Your task to perform on an android device: Check the weather Image 0: 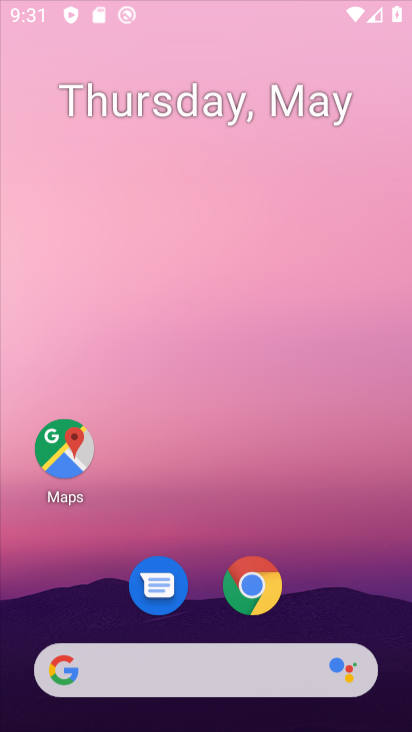
Step 0: press home button
Your task to perform on an android device: Check the weather Image 1: 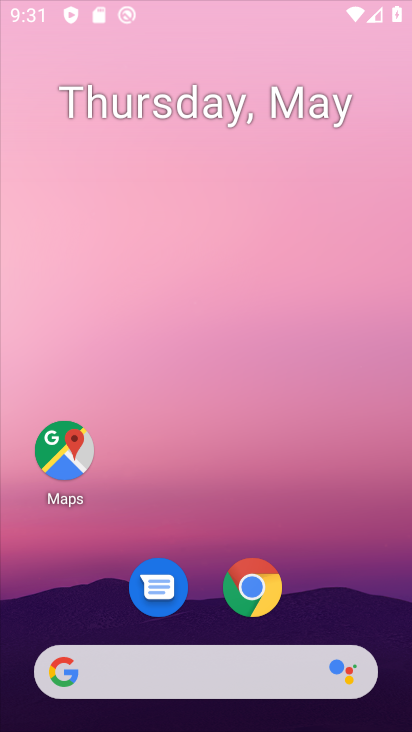
Step 1: drag from (214, 633) to (162, 108)
Your task to perform on an android device: Check the weather Image 2: 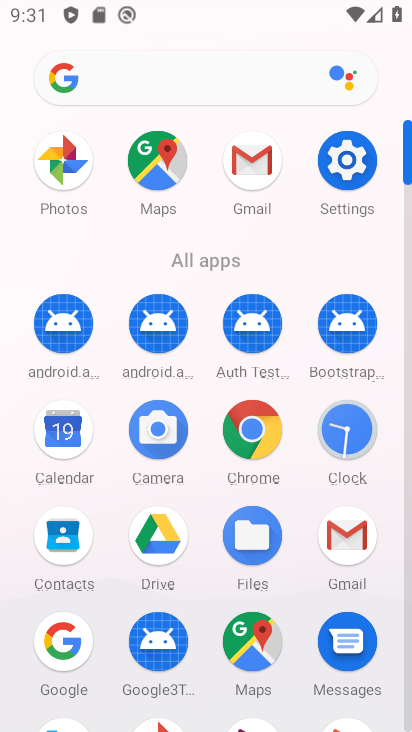
Step 2: click (57, 654)
Your task to perform on an android device: Check the weather Image 3: 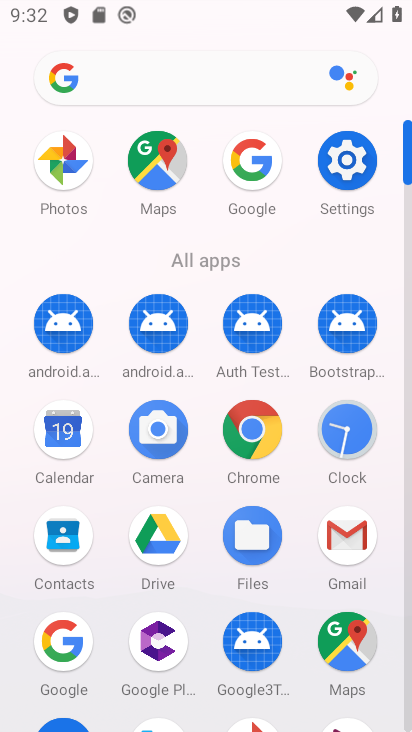
Step 3: click (61, 620)
Your task to perform on an android device: Check the weather Image 4: 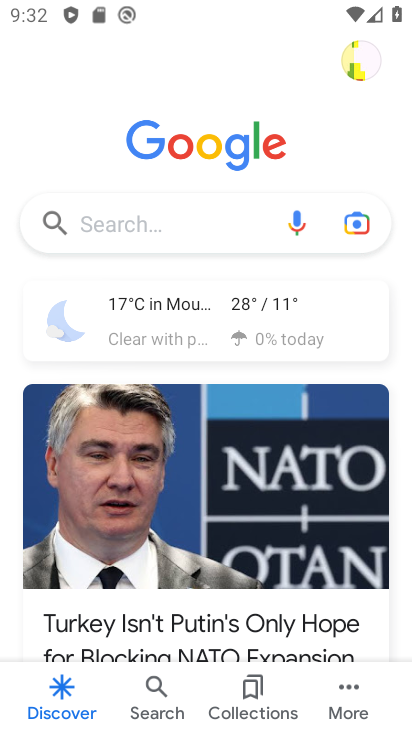
Step 4: click (109, 232)
Your task to perform on an android device: Check the weather Image 5: 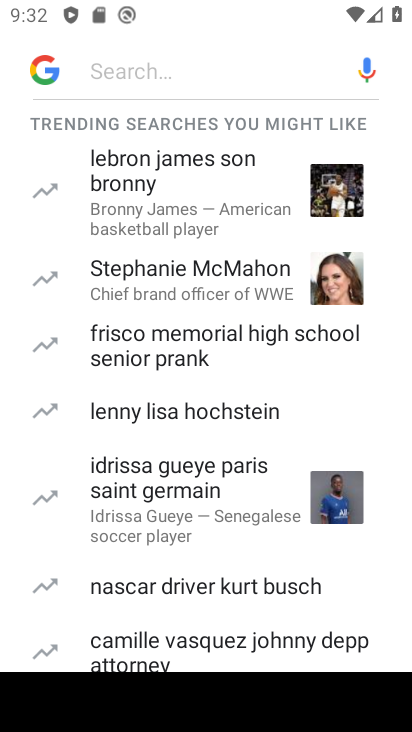
Step 5: drag from (166, 476) to (94, 0)
Your task to perform on an android device: Check the weather Image 6: 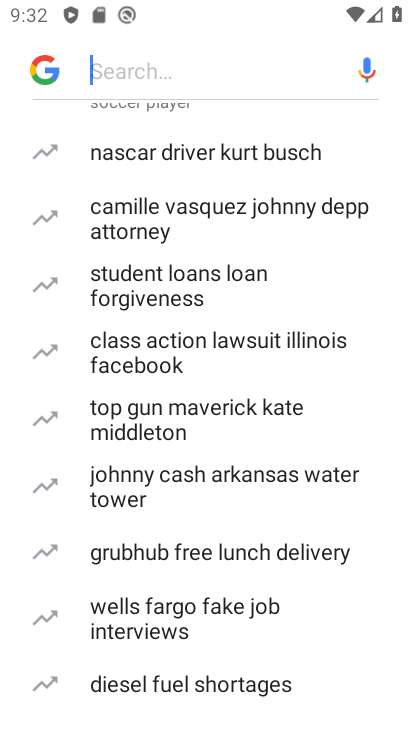
Step 6: drag from (135, 586) to (81, 6)
Your task to perform on an android device: Check the weather Image 7: 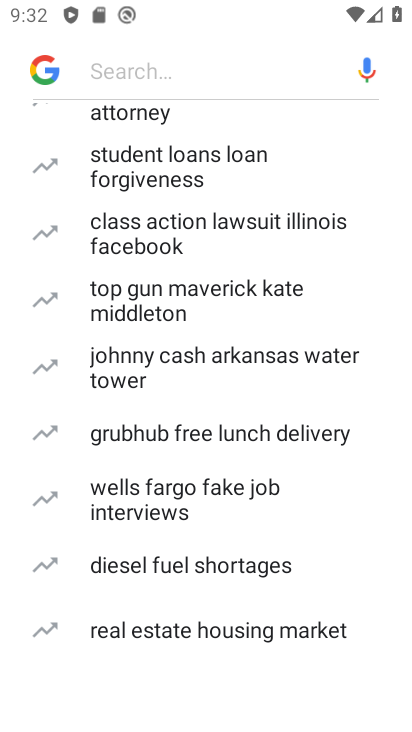
Step 7: press back button
Your task to perform on an android device: Check the weather Image 8: 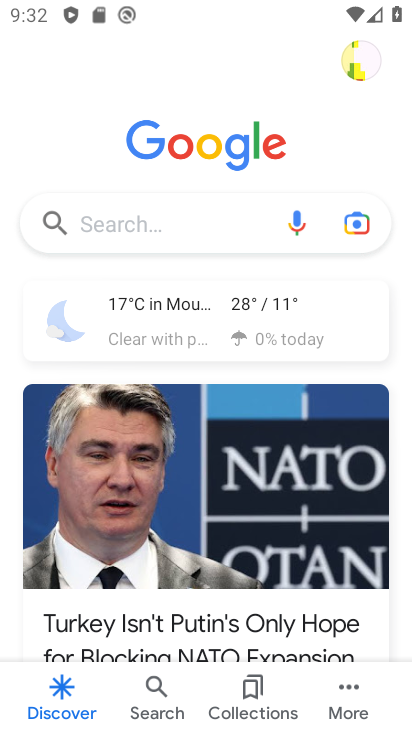
Step 8: click (147, 210)
Your task to perform on an android device: Check the weather Image 9: 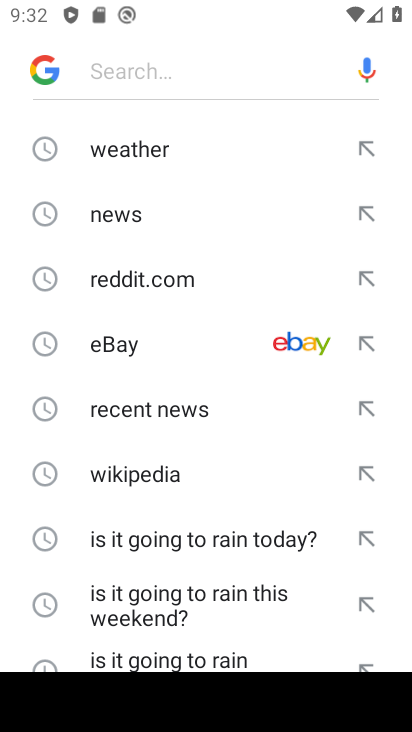
Step 9: click (143, 158)
Your task to perform on an android device: Check the weather Image 10: 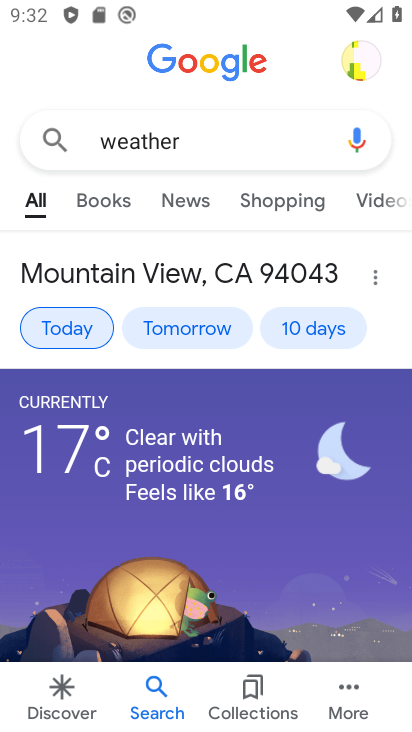
Step 10: task complete